Your task to perform on an android device: What is the news today? Image 0: 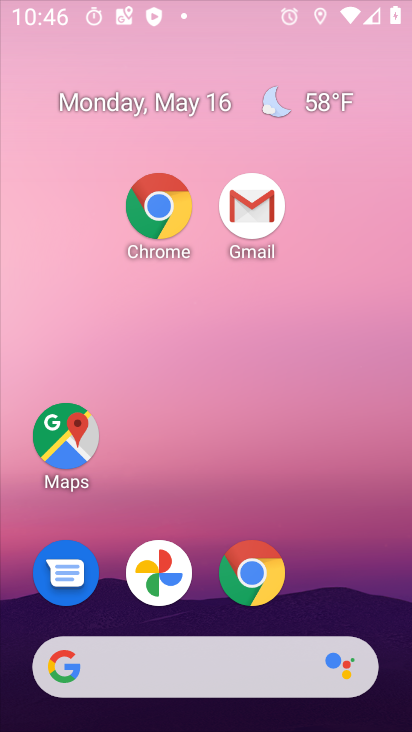
Step 0: drag from (376, 683) to (266, 191)
Your task to perform on an android device: What is the news today? Image 1: 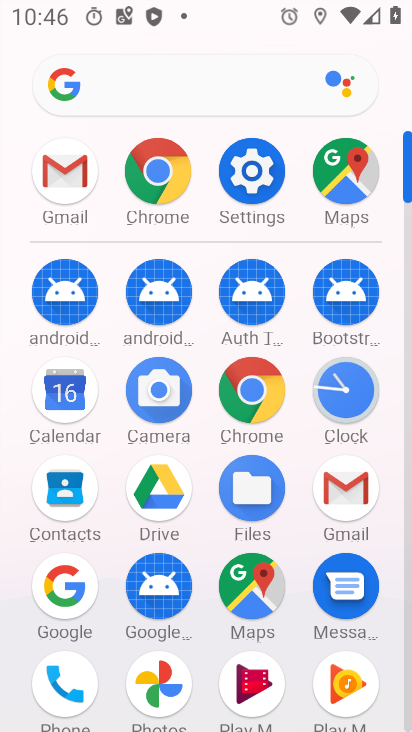
Step 1: task complete